Your task to perform on an android device: change text size in settings app Image 0: 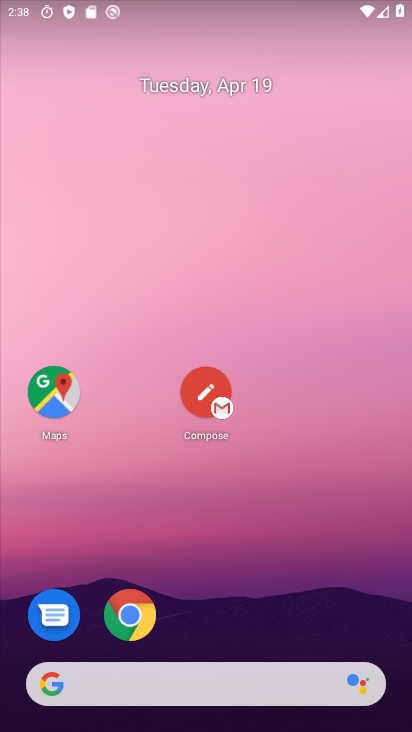
Step 0: drag from (244, 648) to (246, 75)
Your task to perform on an android device: change text size in settings app Image 1: 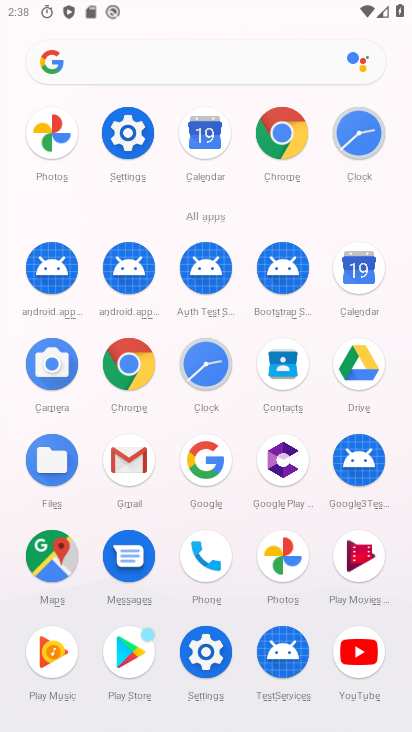
Step 1: click (209, 663)
Your task to perform on an android device: change text size in settings app Image 2: 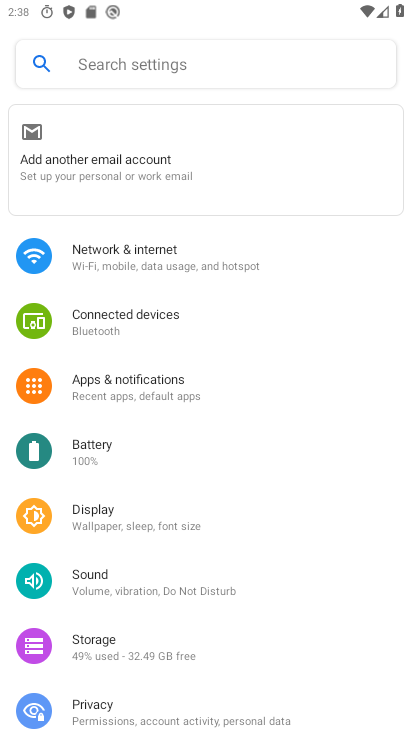
Step 2: drag from (203, 311) to (210, 658)
Your task to perform on an android device: change text size in settings app Image 3: 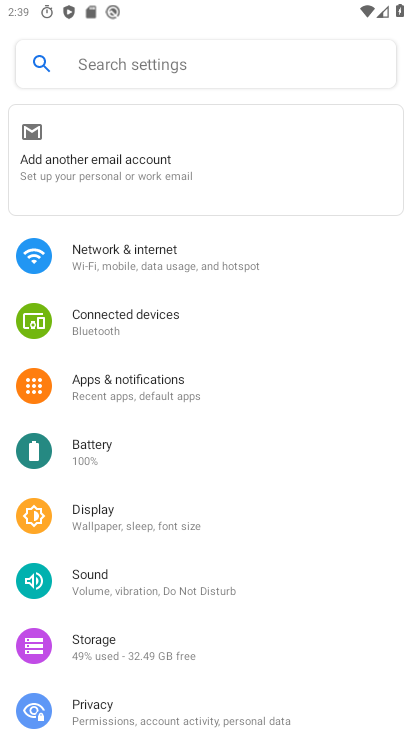
Step 3: drag from (213, 694) to (224, 273)
Your task to perform on an android device: change text size in settings app Image 4: 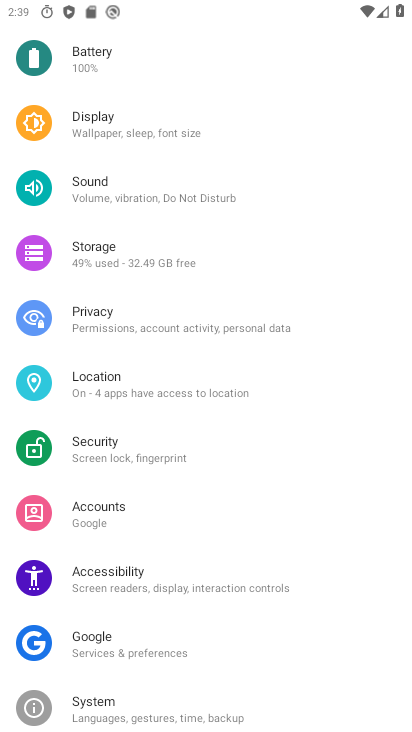
Step 4: click (150, 579)
Your task to perform on an android device: change text size in settings app Image 5: 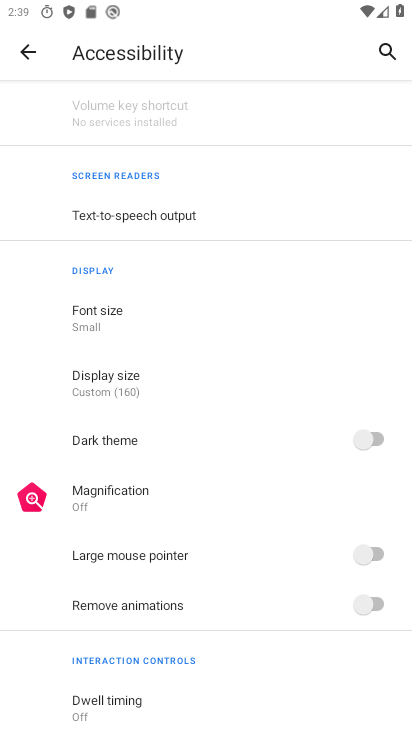
Step 5: click (141, 319)
Your task to perform on an android device: change text size in settings app Image 6: 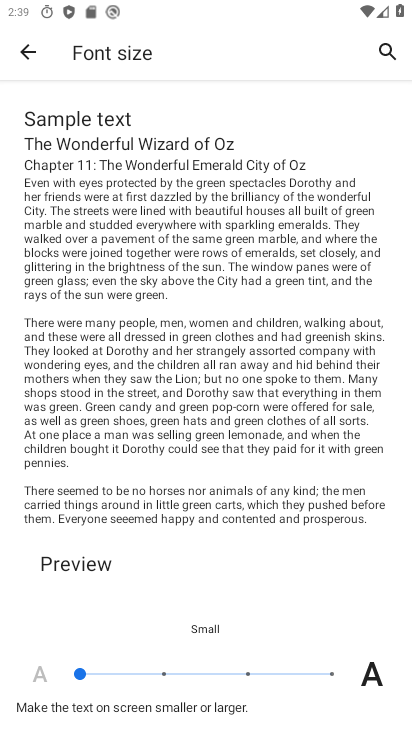
Step 6: click (138, 674)
Your task to perform on an android device: change text size in settings app Image 7: 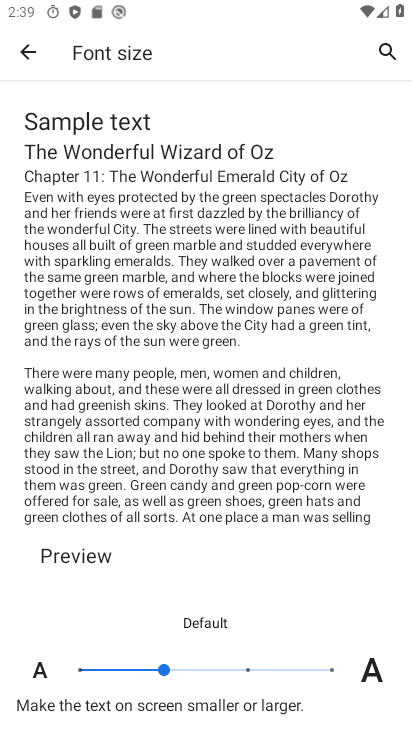
Step 7: task complete